Your task to perform on an android device: Go to Android settings Image 0: 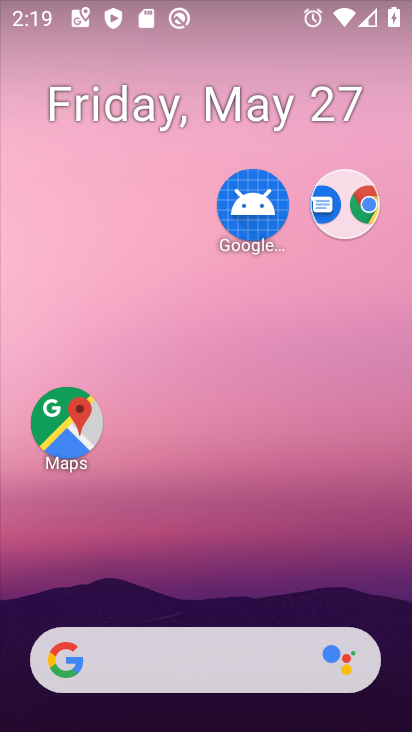
Step 0: drag from (246, 679) to (245, 261)
Your task to perform on an android device: Go to Android settings Image 1: 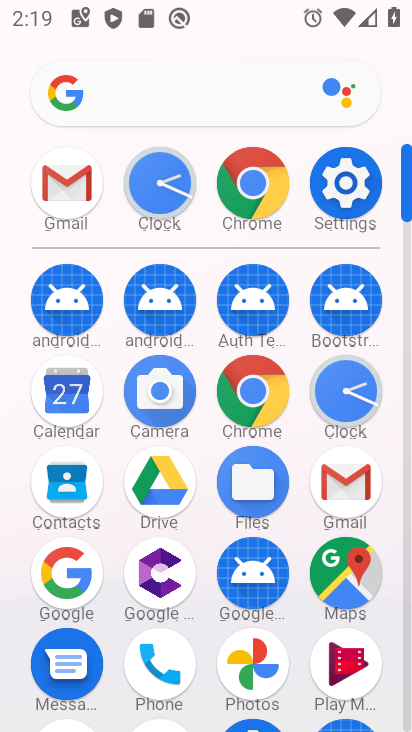
Step 1: click (352, 202)
Your task to perform on an android device: Go to Android settings Image 2: 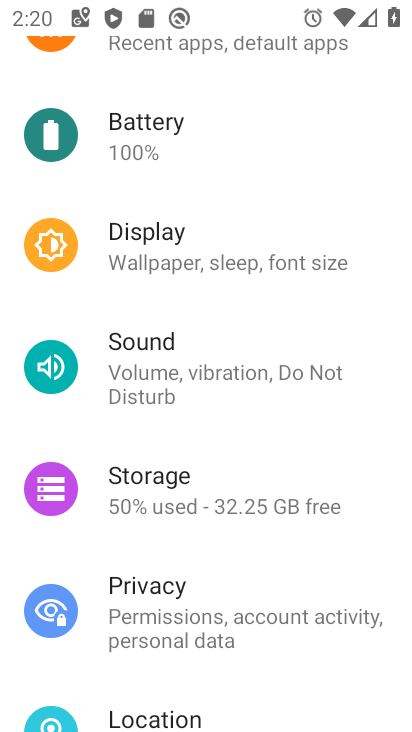
Step 2: drag from (142, 627) to (170, 423)
Your task to perform on an android device: Go to Android settings Image 3: 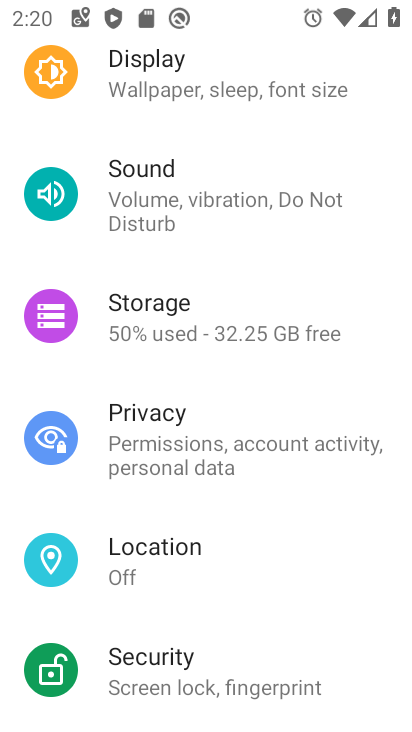
Step 3: drag from (153, 607) to (209, 301)
Your task to perform on an android device: Go to Android settings Image 4: 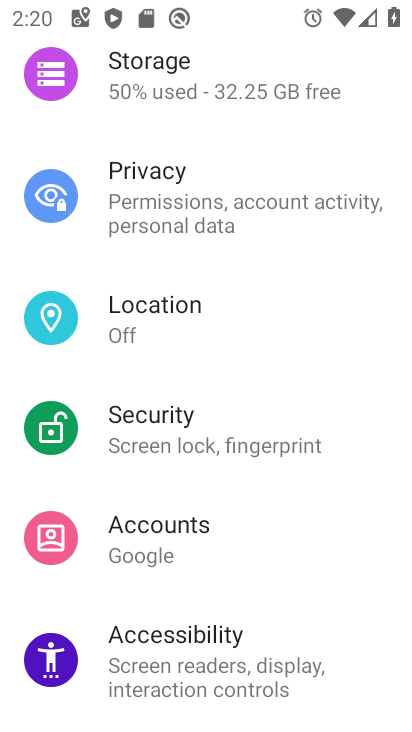
Step 4: drag from (179, 593) to (213, 344)
Your task to perform on an android device: Go to Android settings Image 5: 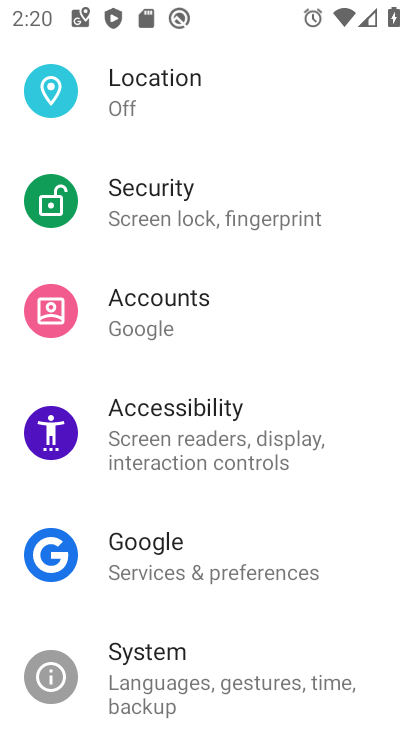
Step 5: drag from (192, 551) to (246, 258)
Your task to perform on an android device: Go to Android settings Image 6: 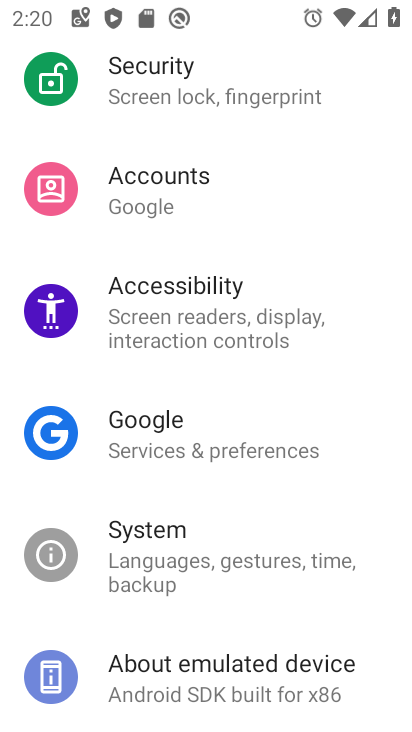
Step 6: drag from (219, 597) to (262, 306)
Your task to perform on an android device: Go to Android settings Image 7: 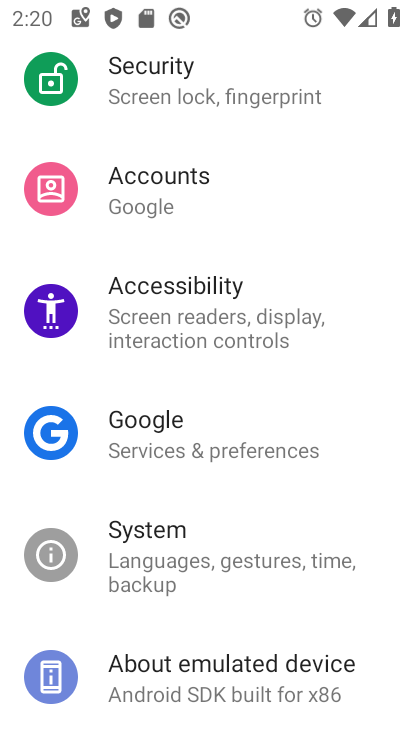
Step 7: click (240, 681)
Your task to perform on an android device: Go to Android settings Image 8: 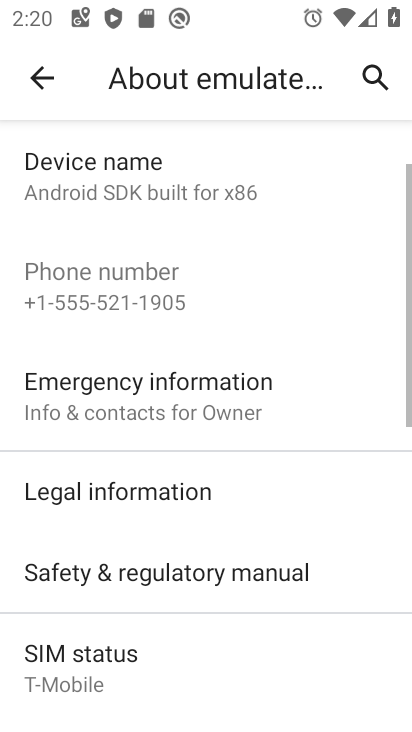
Step 8: drag from (240, 681) to (289, 393)
Your task to perform on an android device: Go to Android settings Image 9: 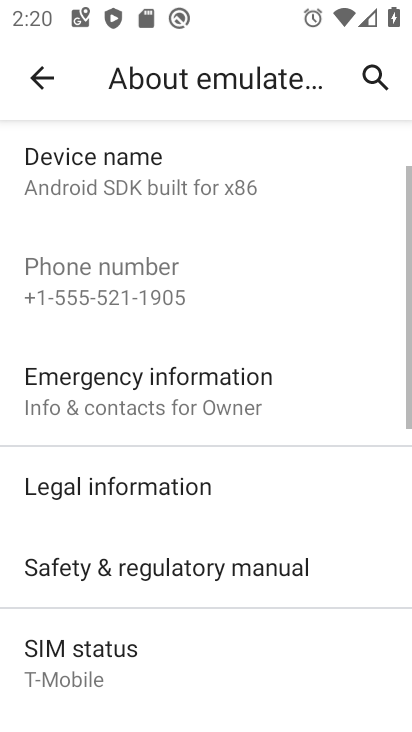
Step 9: drag from (219, 671) to (294, 381)
Your task to perform on an android device: Go to Android settings Image 10: 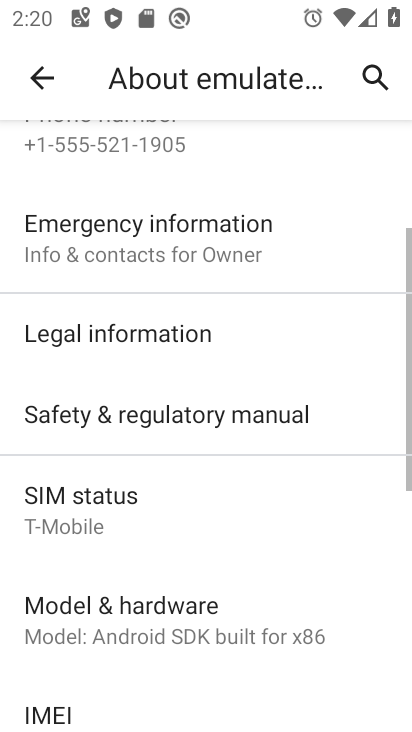
Step 10: drag from (243, 584) to (348, 253)
Your task to perform on an android device: Go to Android settings Image 11: 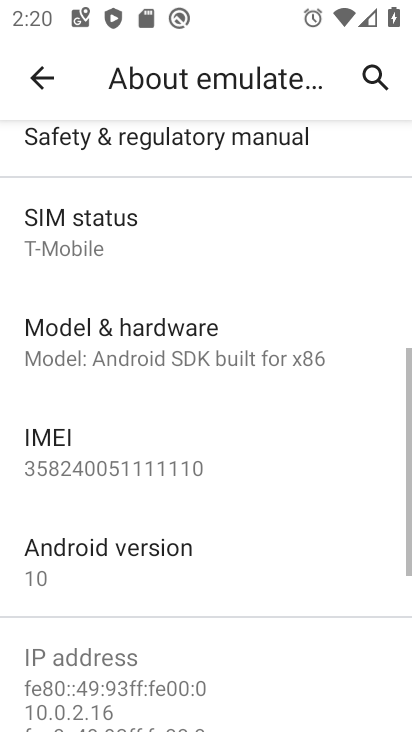
Step 11: click (169, 586)
Your task to perform on an android device: Go to Android settings Image 12: 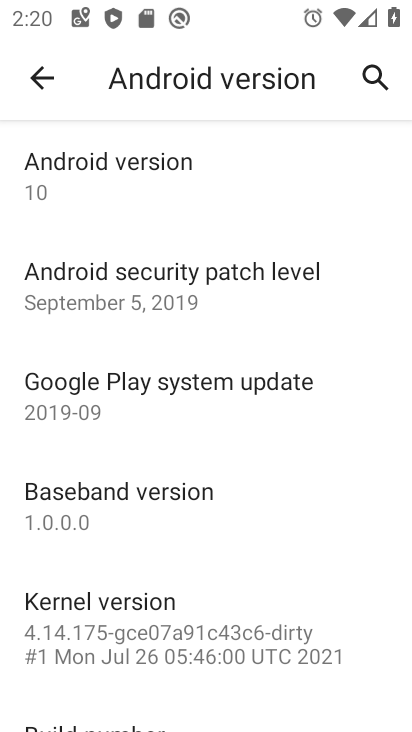
Step 12: task complete